Your task to perform on an android device: open sync settings in chrome Image 0: 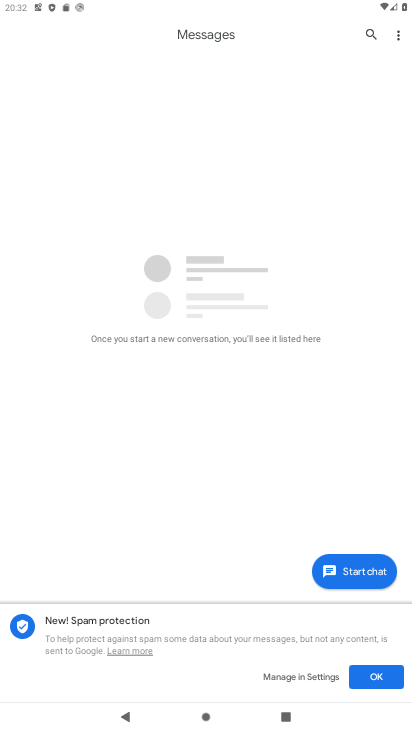
Step 0: press home button
Your task to perform on an android device: open sync settings in chrome Image 1: 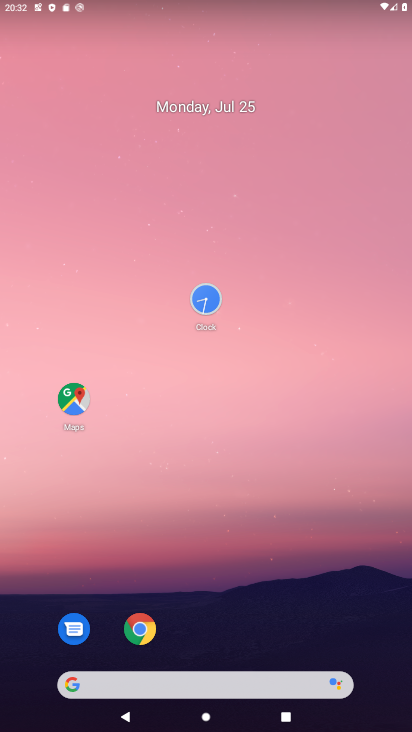
Step 1: click (132, 630)
Your task to perform on an android device: open sync settings in chrome Image 2: 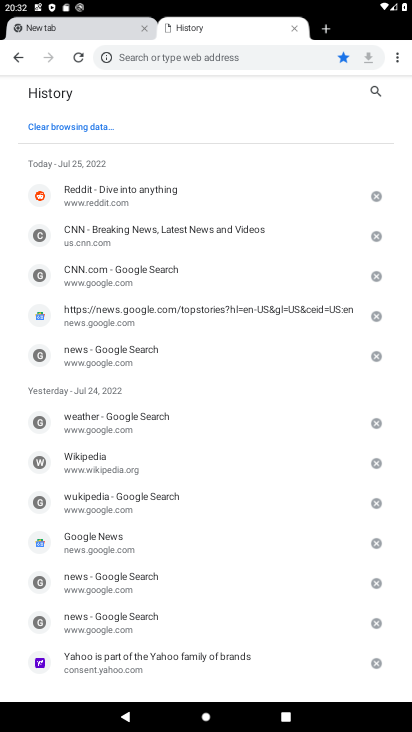
Step 2: click (393, 58)
Your task to perform on an android device: open sync settings in chrome Image 3: 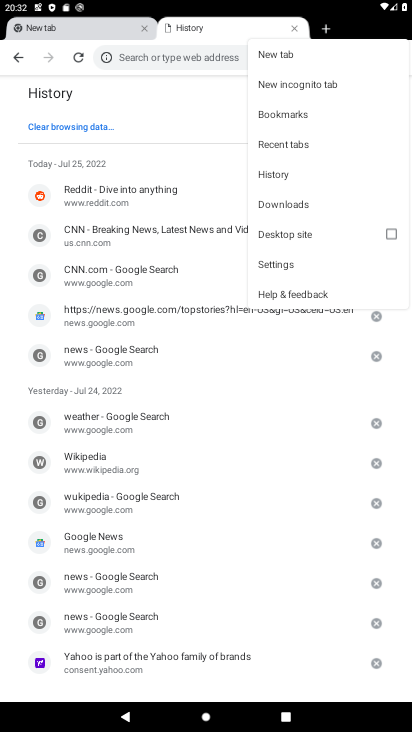
Step 3: click (274, 262)
Your task to perform on an android device: open sync settings in chrome Image 4: 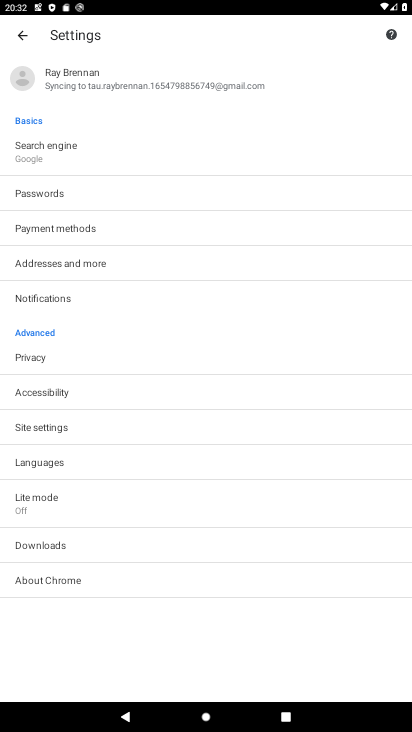
Step 4: click (121, 88)
Your task to perform on an android device: open sync settings in chrome Image 5: 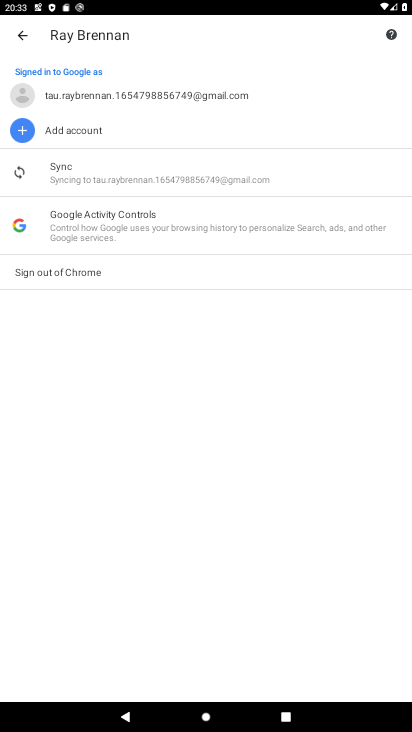
Step 5: click (153, 178)
Your task to perform on an android device: open sync settings in chrome Image 6: 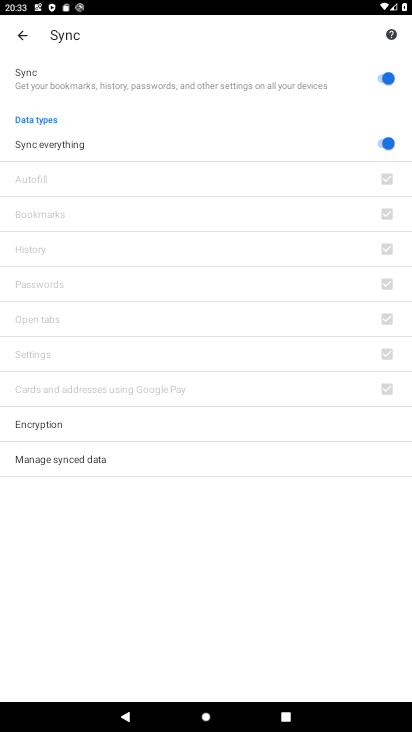
Step 6: task complete